Your task to perform on an android device: turn on priority inbox in the gmail app Image 0: 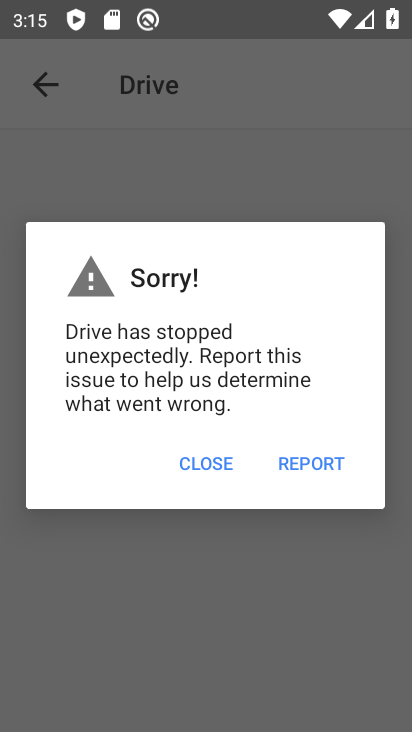
Step 0: press back button
Your task to perform on an android device: turn on priority inbox in the gmail app Image 1: 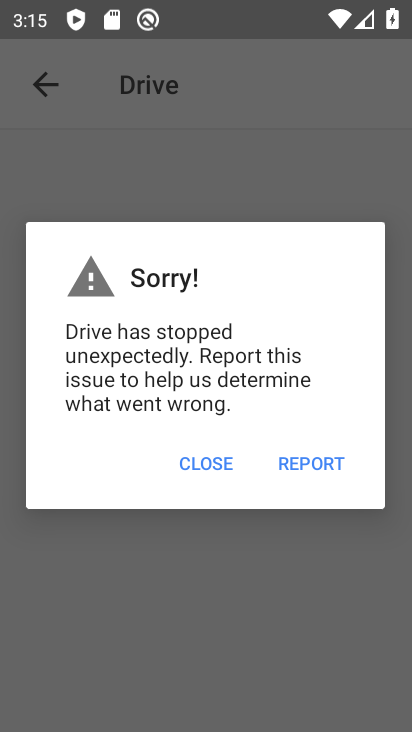
Step 1: press home button
Your task to perform on an android device: turn on priority inbox in the gmail app Image 2: 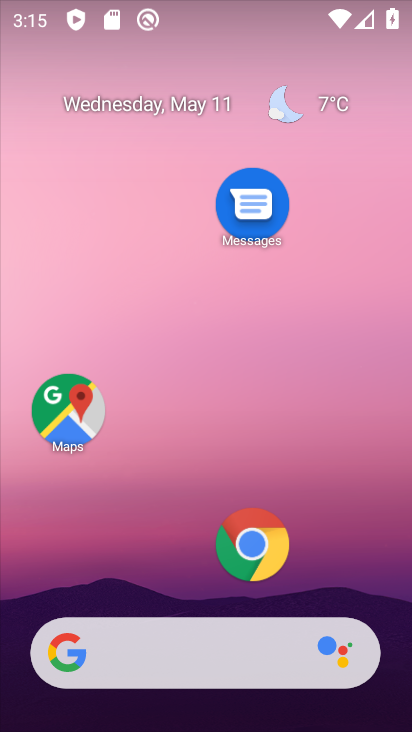
Step 2: drag from (176, 525) to (304, 46)
Your task to perform on an android device: turn on priority inbox in the gmail app Image 3: 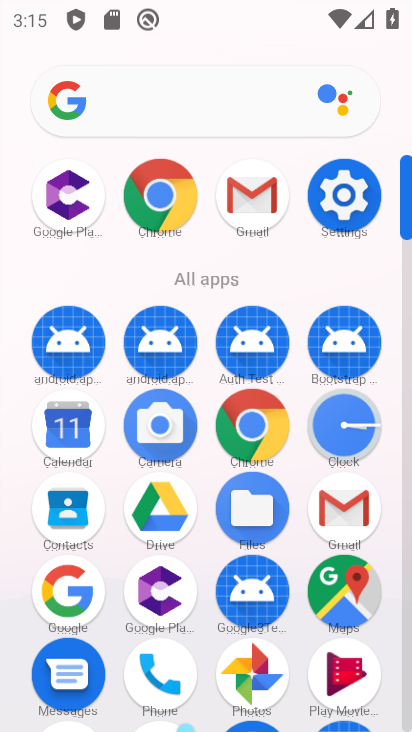
Step 3: click (253, 195)
Your task to perform on an android device: turn on priority inbox in the gmail app Image 4: 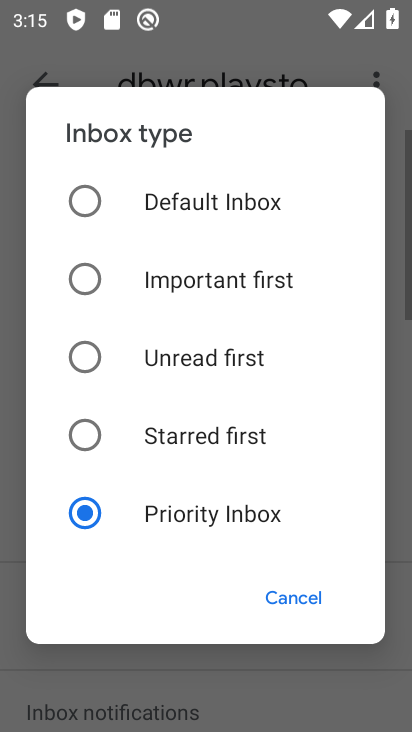
Step 4: click (89, 519)
Your task to perform on an android device: turn on priority inbox in the gmail app Image 5: 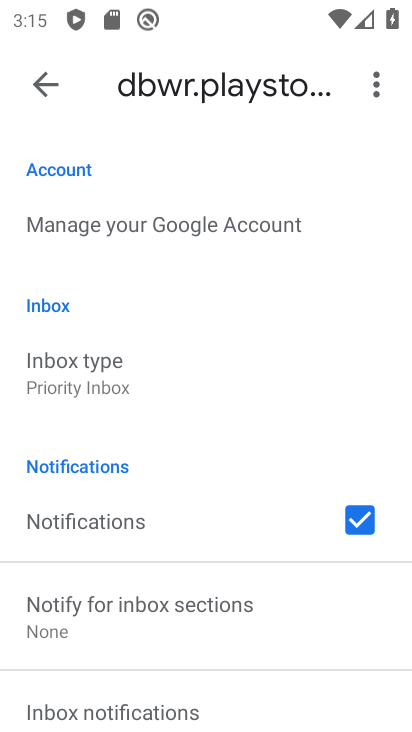
Step 5: task complete